Your task to perform on an android device: turn on the 24-hour format for clock Image 0: 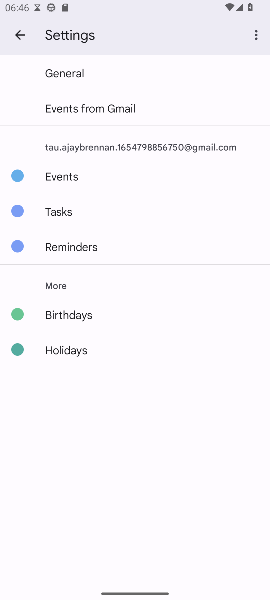
Step 0: press home button
Your task to perform on an android device: turn on the 24-hour format for clock Image 1: 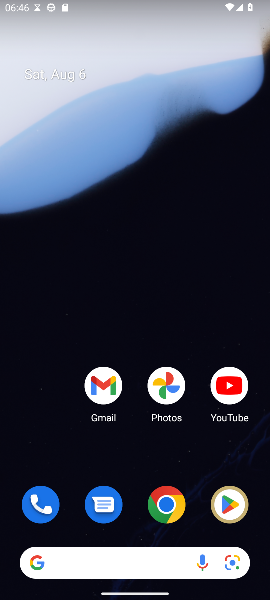
Step 1: drag from (95, 566) to (154, 124)
Your task to perform on an android device: turn on the 24-hour format for clock Image 2: 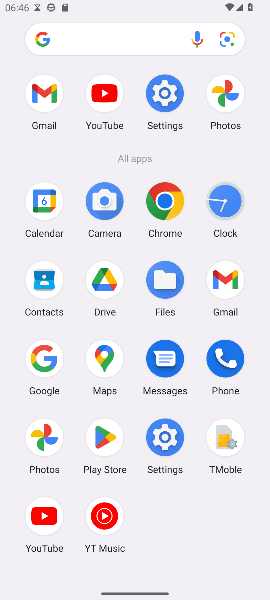
Step 2: click (223, 201)
Your task to perform on an android device: turn on the 24-hour format for clock Image 3: 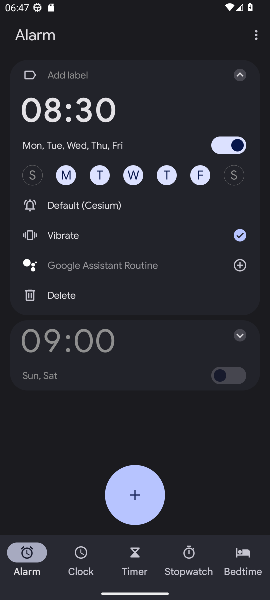
Step 3: click (257, 38)
Your task to perform on an android device: turn on the 24-hour format for clock Image 4: 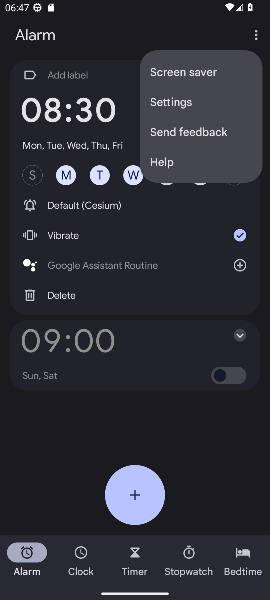
Step 4: click (187, 97)
Your task to perform on an android device: turn on the 24-hour format for clock Image 5: 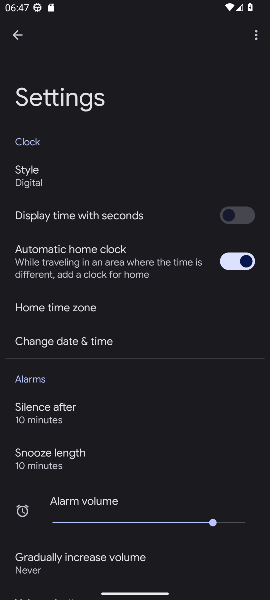
Step 5: click (97, 339)
Your task to perform on an android device: turn on the 24-hour format for clock Image 6: 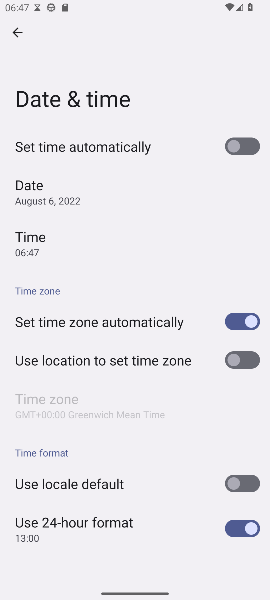
Step 6: task complete